Your task to perform on an android device: change notifications settings Image 0: 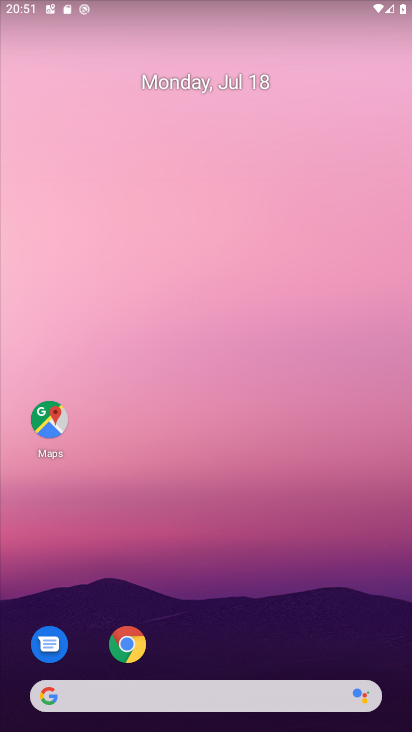
Step 0: drag from (261, 654) to (230, 162)
Your task to perform on an android device: change notifications settings Image 1: 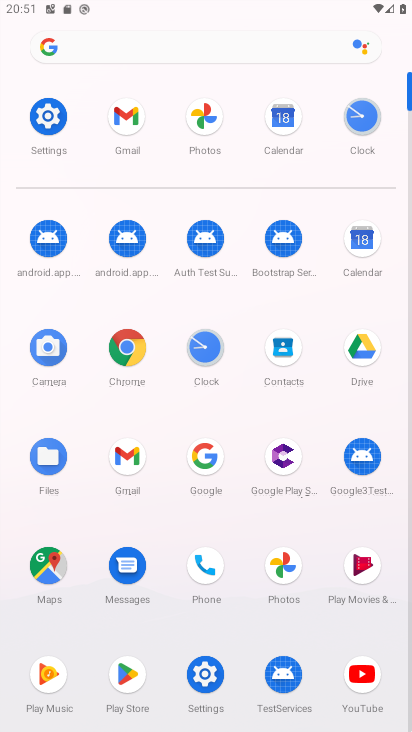
Step 1: click (60, 123)
Your task to perform on an android device: change notifications settings Image 2: 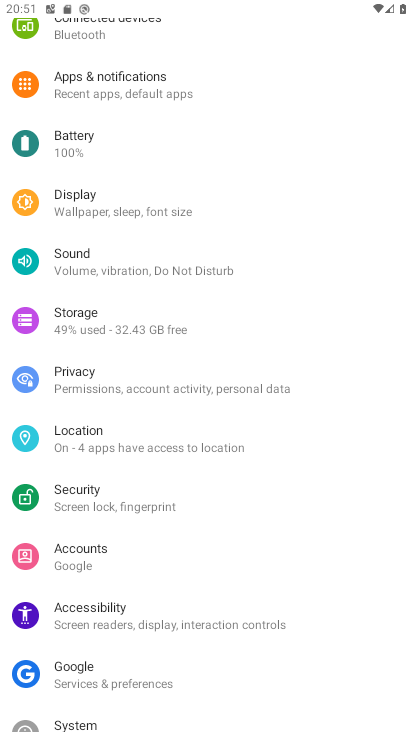
Step 2: click (210, 80)
Your task to perform on an android device: change notifications settings Image 3: 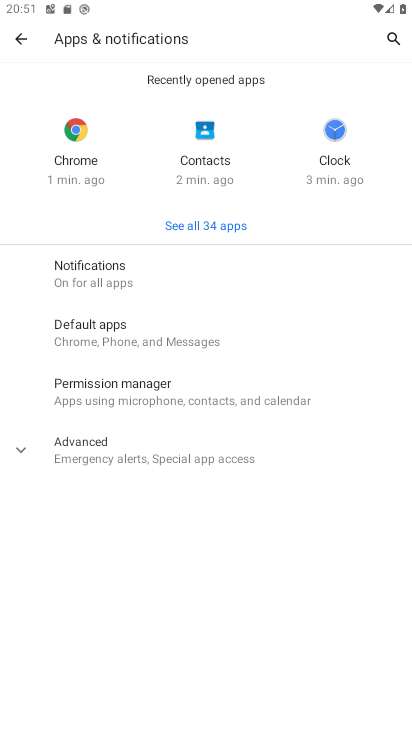
Step 3: click (150, 285)
Your task to perform on an android device: change notifications settings Image 4: 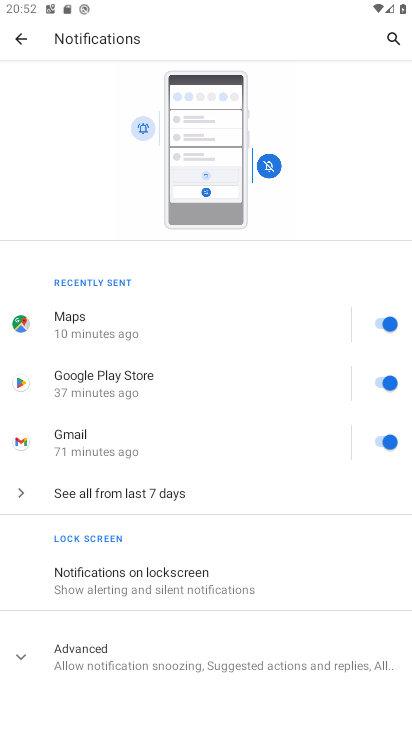
Step 4: click (145, 653)
Your task to perform on an android device: change notifications settings Image 5: 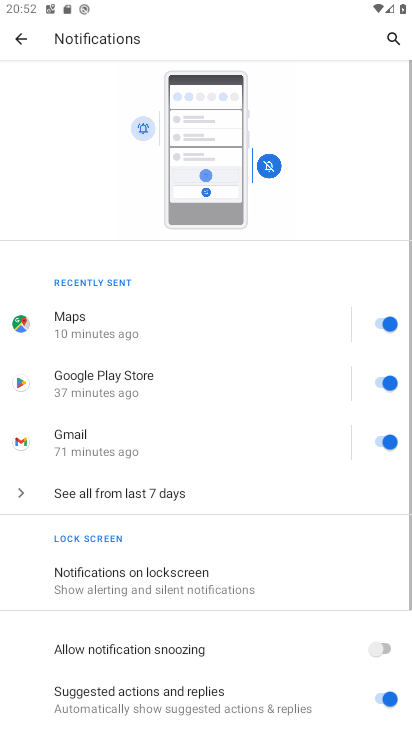
Step 5: drag from (262, 592) to (267, 298)
Your task to perform on an android device: change notifications settings Image 6: 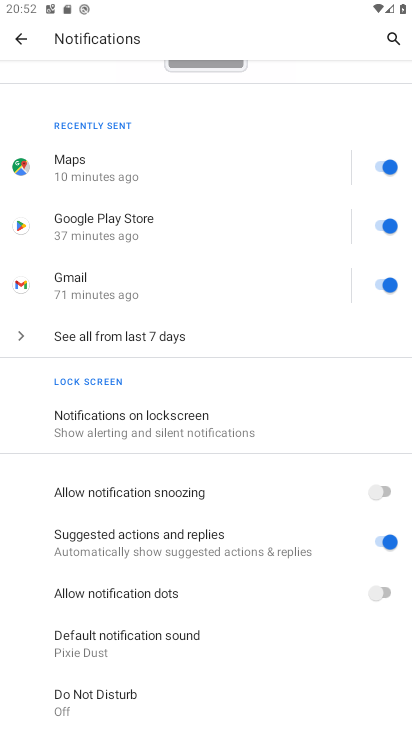
Step 6: click (376, 483)
Your task to perform on an android device: change notifications settings Image 7: 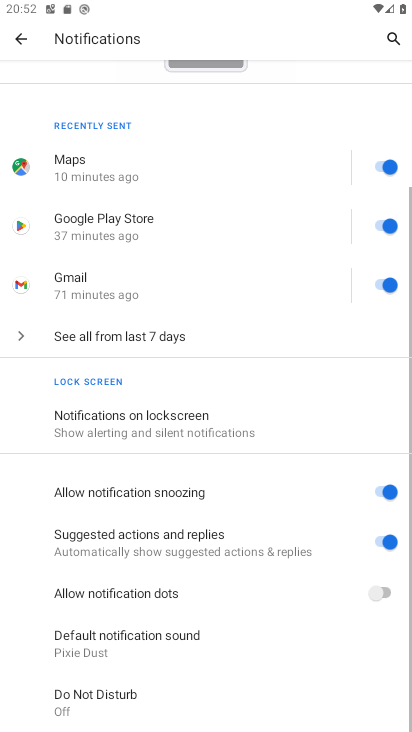
Step 7: task complete